Your task to perform on an android device: empty trash in google photos Image 0: 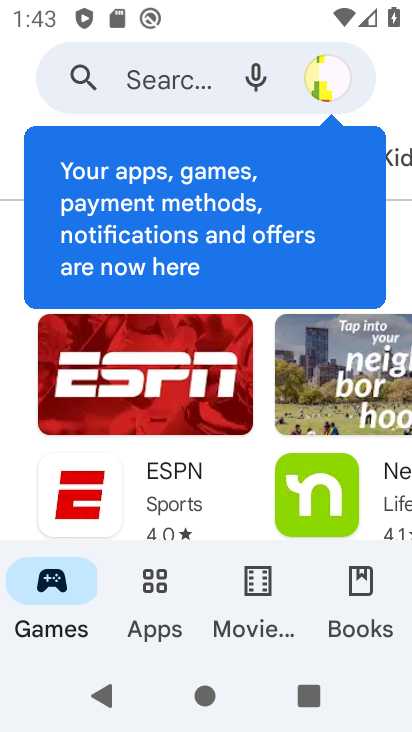
Step 0: press home button
Your task to perform on an android device: empty trash in google photos Image 1: 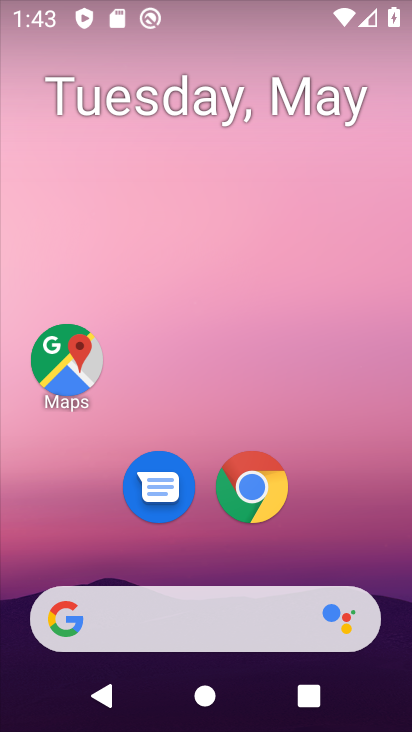
Step 1: drag from (258, 568) to (251, 120)
Your task to perform on an android device: empty trash in google photos Image 2: 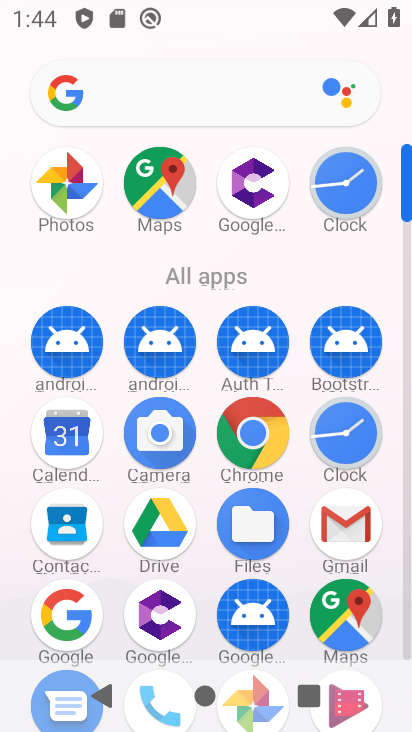
Step 2: drag from (199, 591) to (223, 203)
Your task to perform on an android device: empty trash in google photos Image 3: 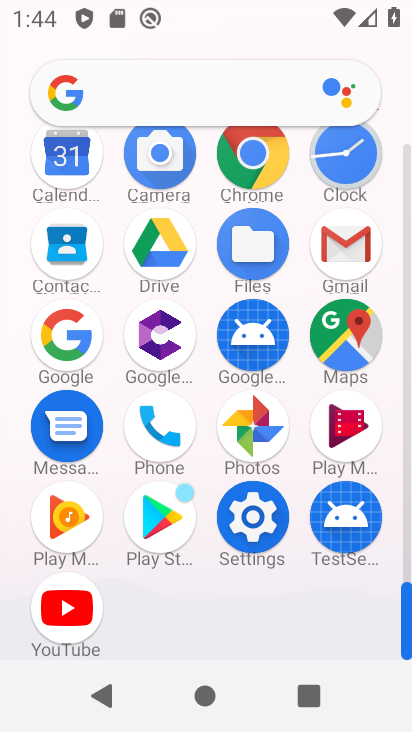
Step 3: click (253, 431)
Your task to perform on an android device: empty trash in google photos Image 4: 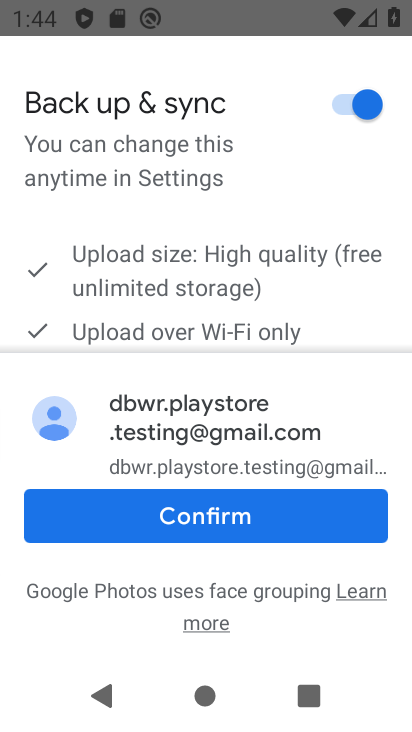
Step 4: click (177, 530)
Your task to perform on an android device: empty trash in google photos Image 5: 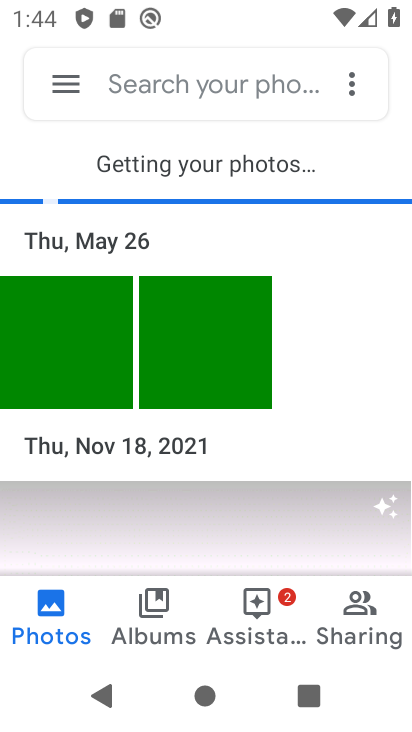
Step 5: click (355, 89)
Your task to perform on an android device: empty trash in google photos Image 6: 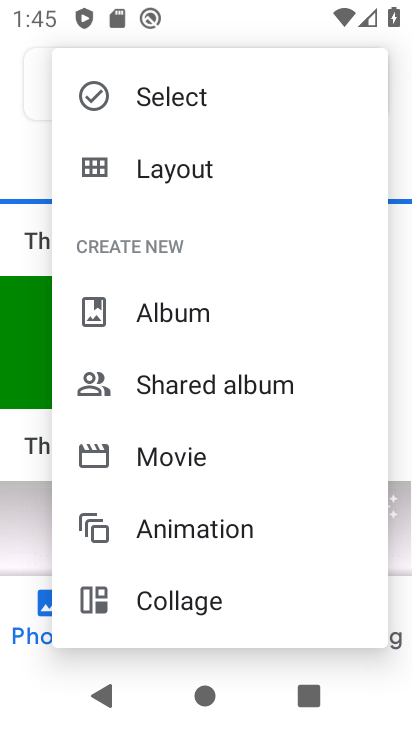
Step 6: drag from (166, 567) to (161, 197)
Your task to perform on an android device: empty trash in google photos Image 7: 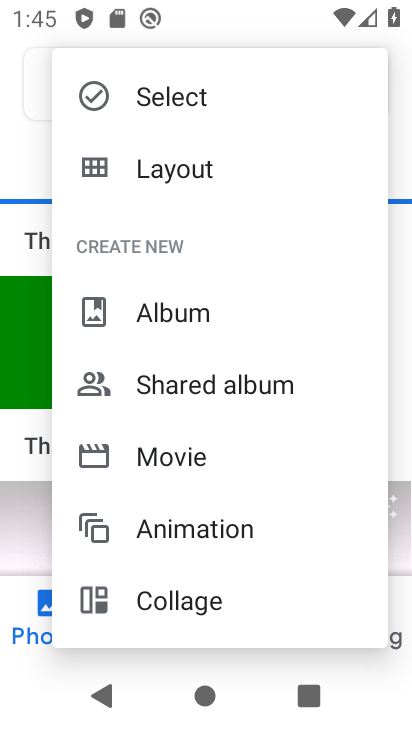
Step 7: press back button
Your task to perform on an android device: empty trash in google photos Image 8: 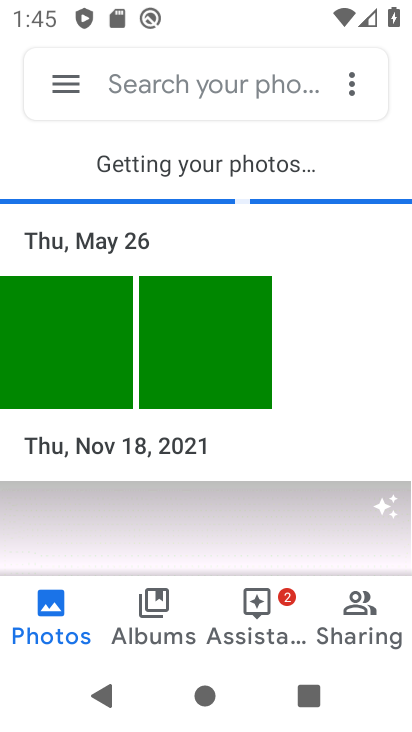
Step 8: click (65, 90)
Your task to perform on an android device: empty trash in google photos Image 9: 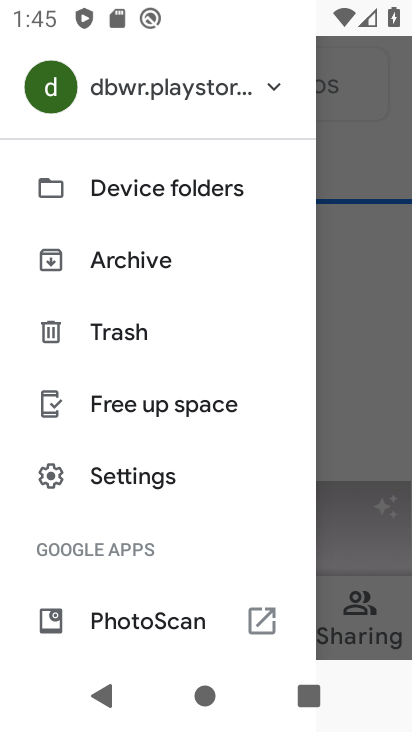
Step 9: click (101, 329)
Your task to perform on an android device: empty trash in google photos Image 10: 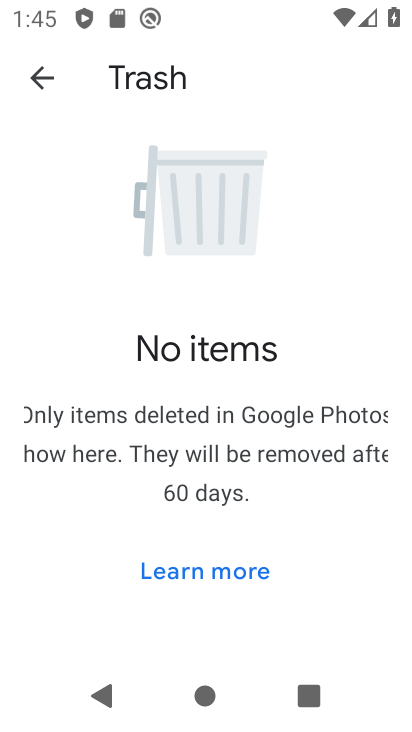
Step 10: task complete